Your task to perform on an android device: What's on my calendar tomorrow? Image 0: 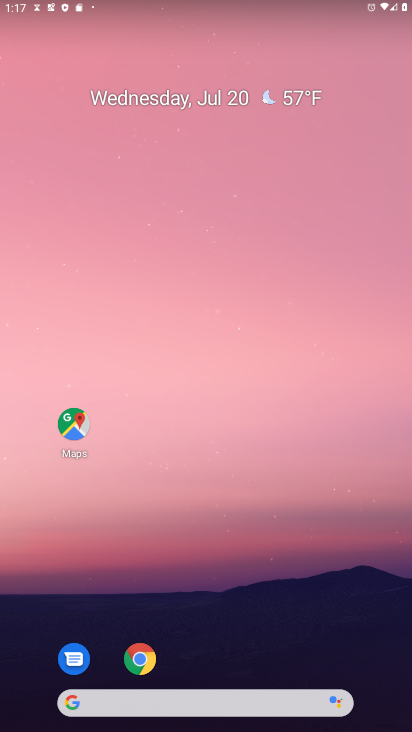
Step 0: drag from (215, 670) to (239, 0)
Your task to perform on an android device: What's on my calendar tomorrow? Image 1: 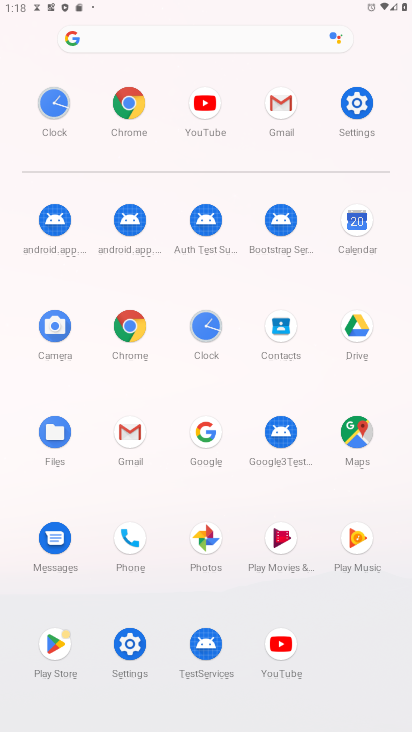
Step 1: click (356, 221)
Your task to perform on an android device: What's on my calendar tomorrow? Image 2: 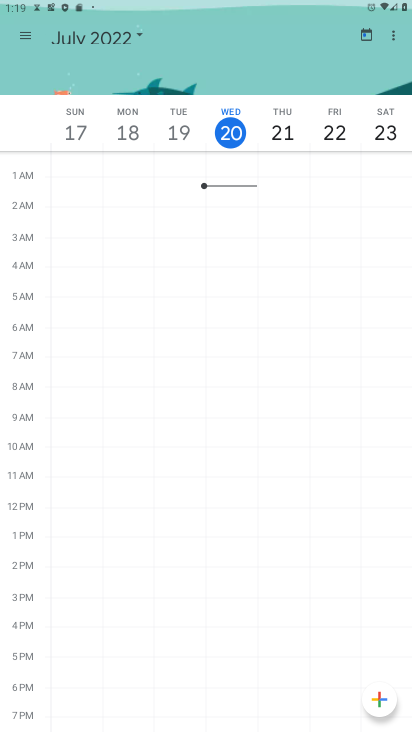
Step 2: click (230, 132)
Your task to perform on an android device: What's on my calendar tomorrow? Image 3: 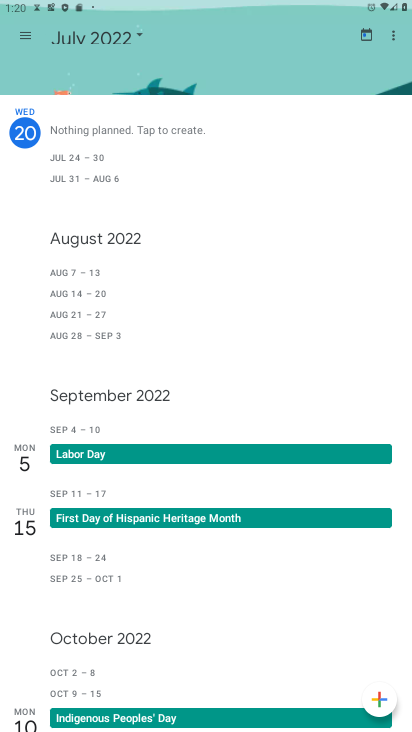
Step 3: click (27, 137)
Your task to perform on an android device: What's on my calendar tomorrow? Image 4: 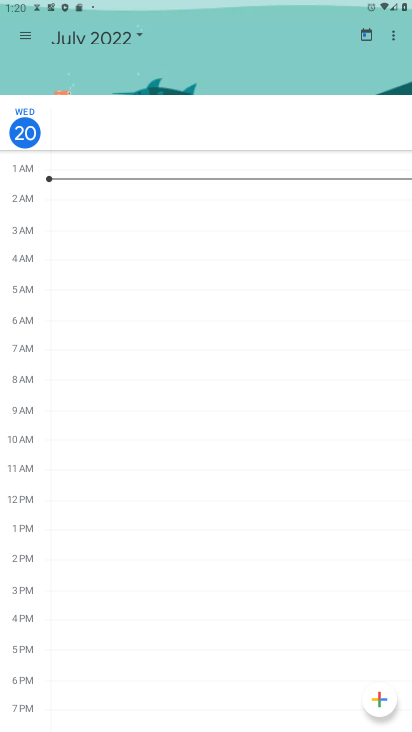
Step 4: click (130, 36)
Your task to perform on an android device: What's on my calendar tomorrow? Image 5: 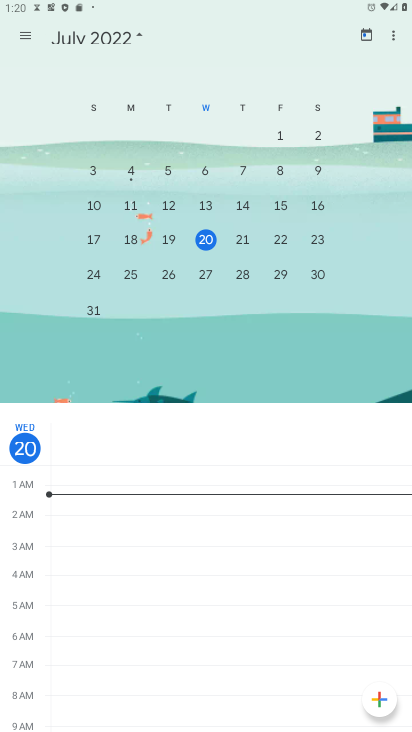
Step 5: click (242, 239)
Your task to perform on an android device: What's on my calendar tomorrow? Image 6: 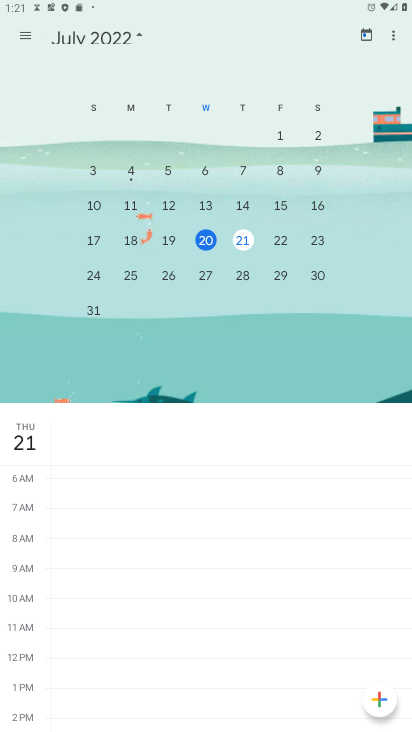
Step 6: click (134, 36)
Your task to perform on an android device: What's on my calendar tomorrow? Image 7: 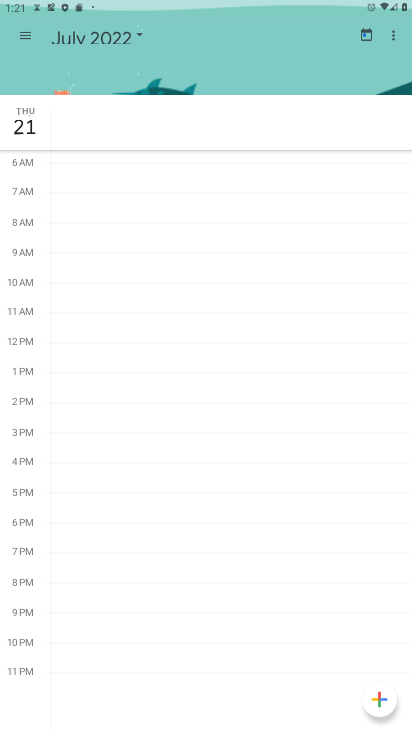
Step 7: task complete